Your task to perform on an android device: Search for the best deal on a 3d printer on aliexpress Image 0: 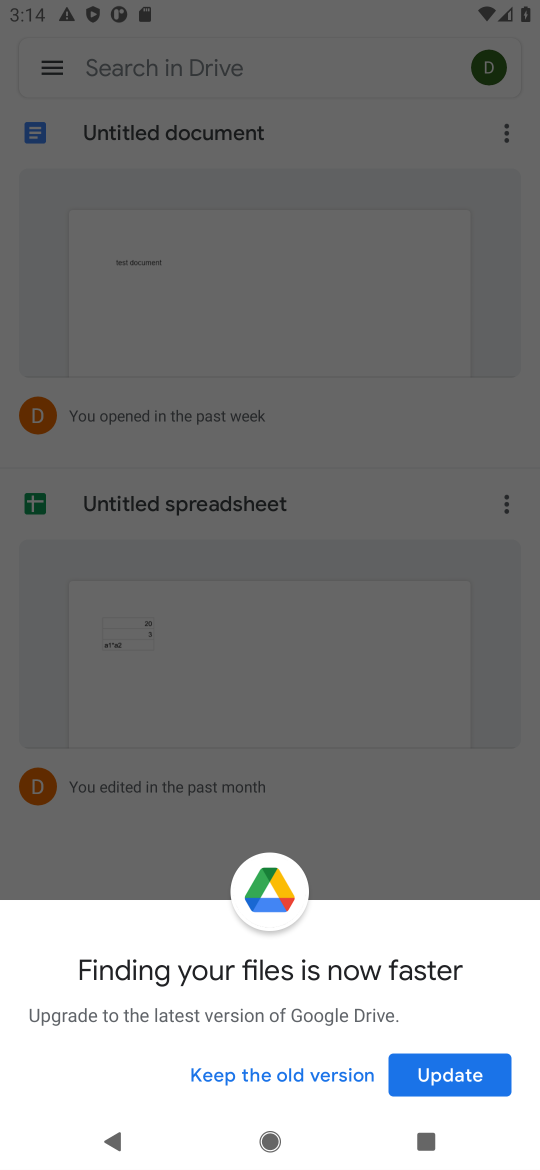
Step 0: press home button
Your task to perform on an android device: Search for the best deal on a 3d printer on aliexpress Image 1: 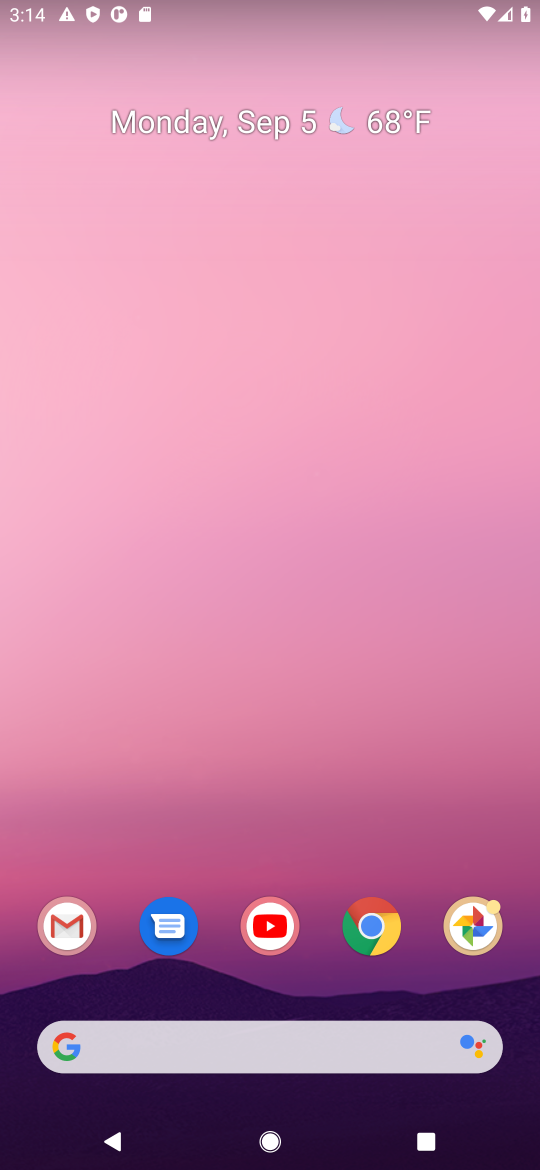
Step 1: click (375, 926)
Your task to perform on an android device: Search for the best deal on a 3d printer on aliexpress Image 2: 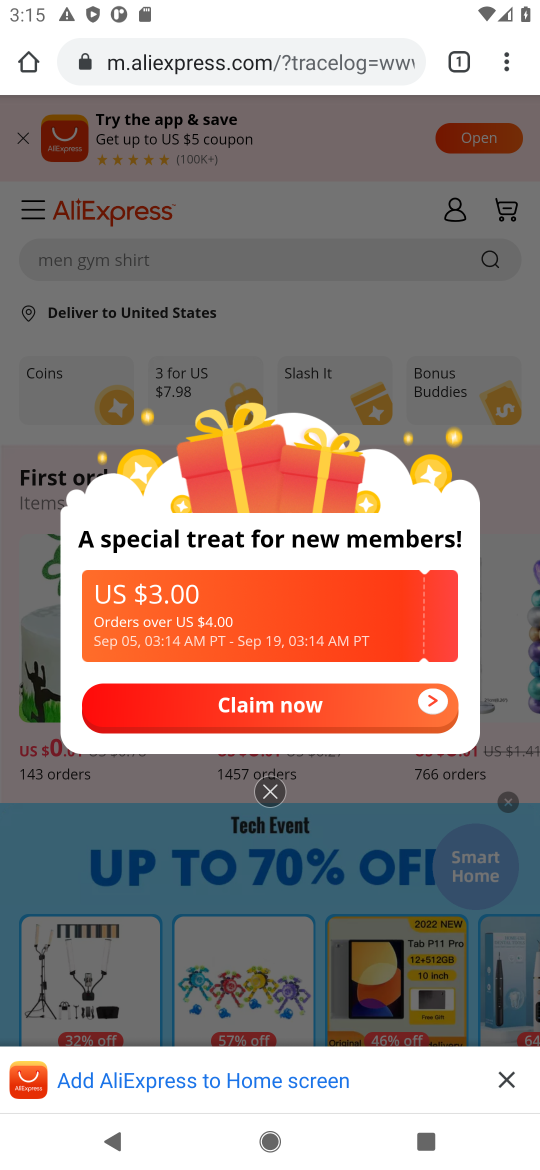
Step 2: click (247, 65)
Your task to perform on an android device: Search for the best deal on a 3d printer on aliexpress Image 3: 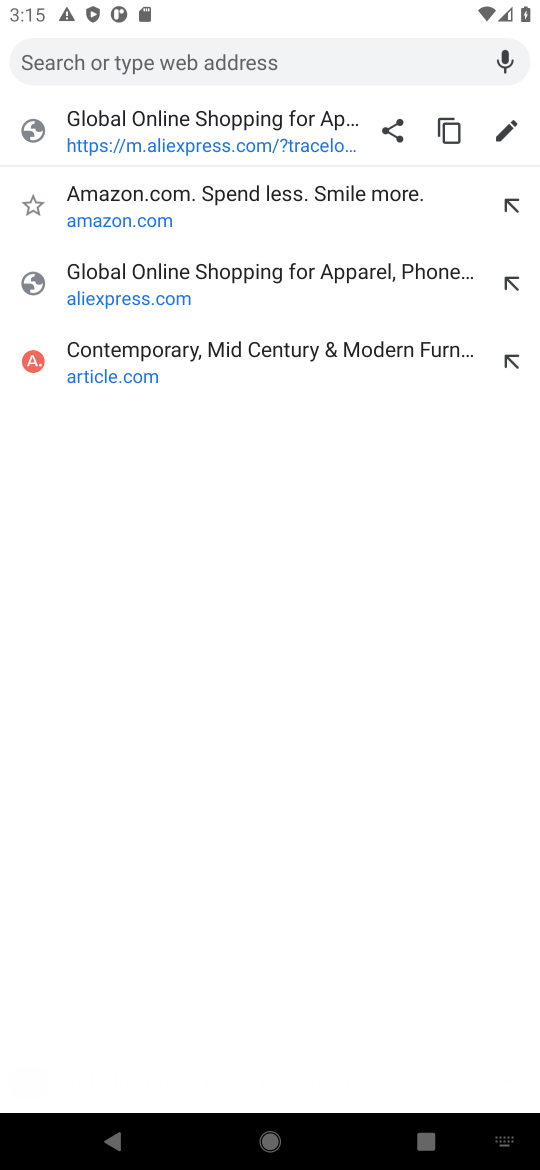
Step 3: type "aliexpress"
Your task to perform on an android device: Search for the best deal on a 3d printer on aliexpress Image 4: 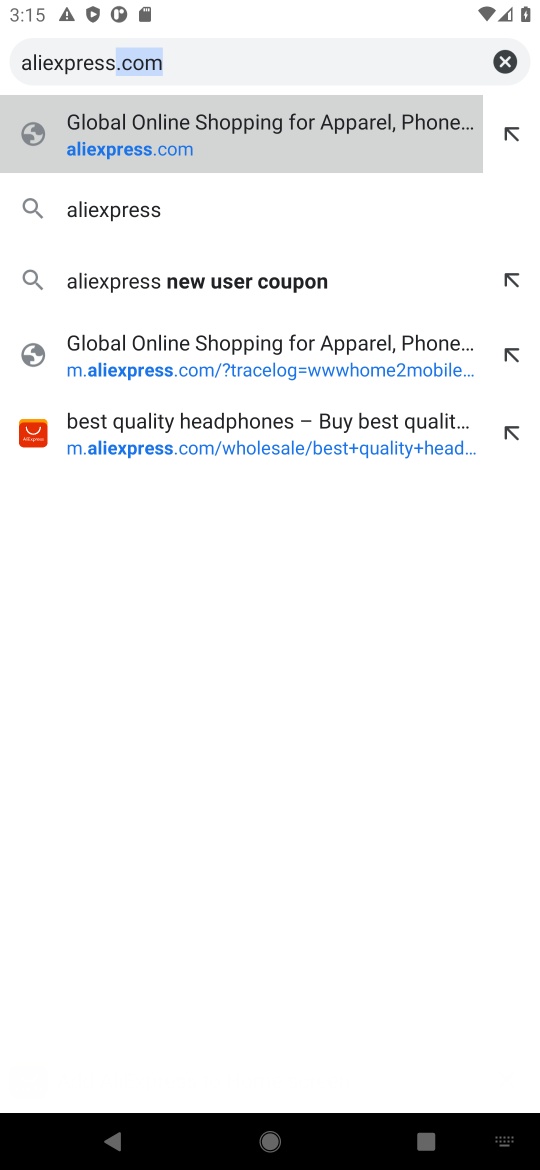
Step 4: click (173, 136)
Your task to perform on an android device: Search for the best deal on a 3d printer on aliexpress Image 5: 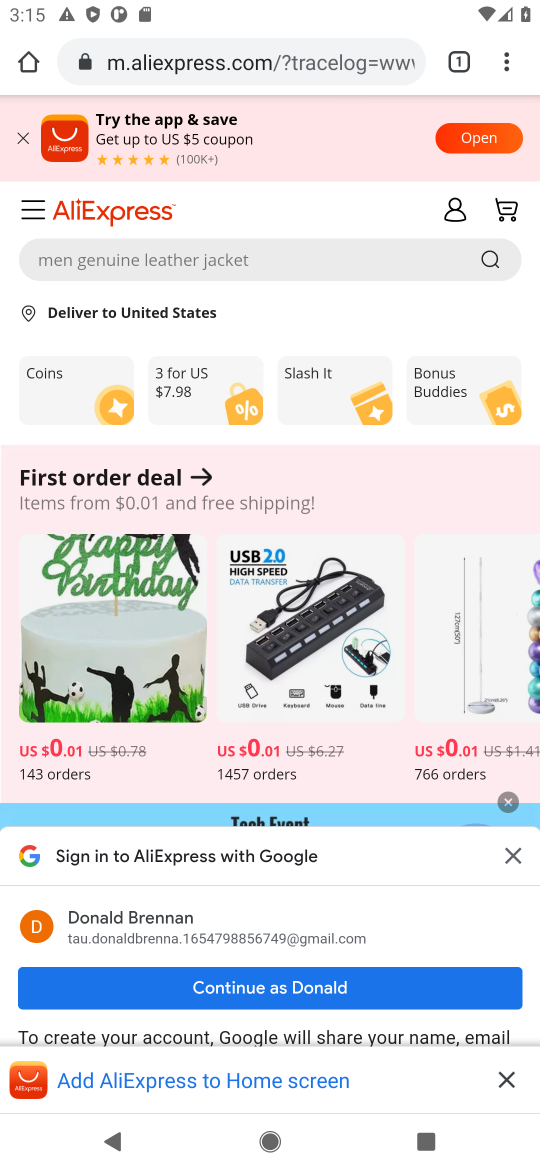
Step 5: click (168, 252)
Your task to perform on an android device: Search for the best deal on a 3d printer on aliexpress Image 6: 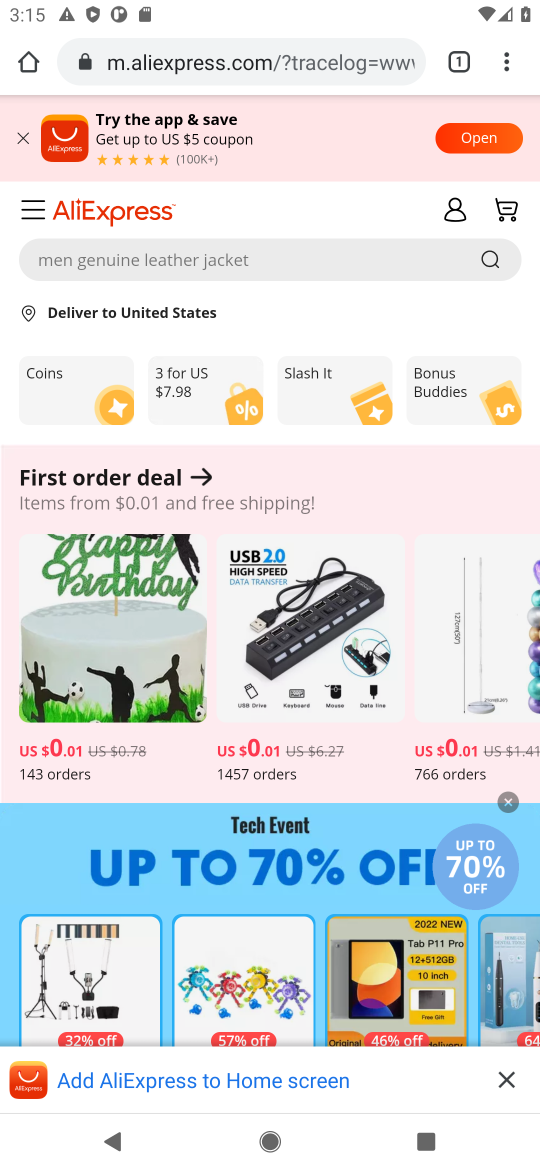
Step 6: click (259, 253)
Your task to perform on an android device: Search for the best deal on a 3d printer on aliexpress Image 7: 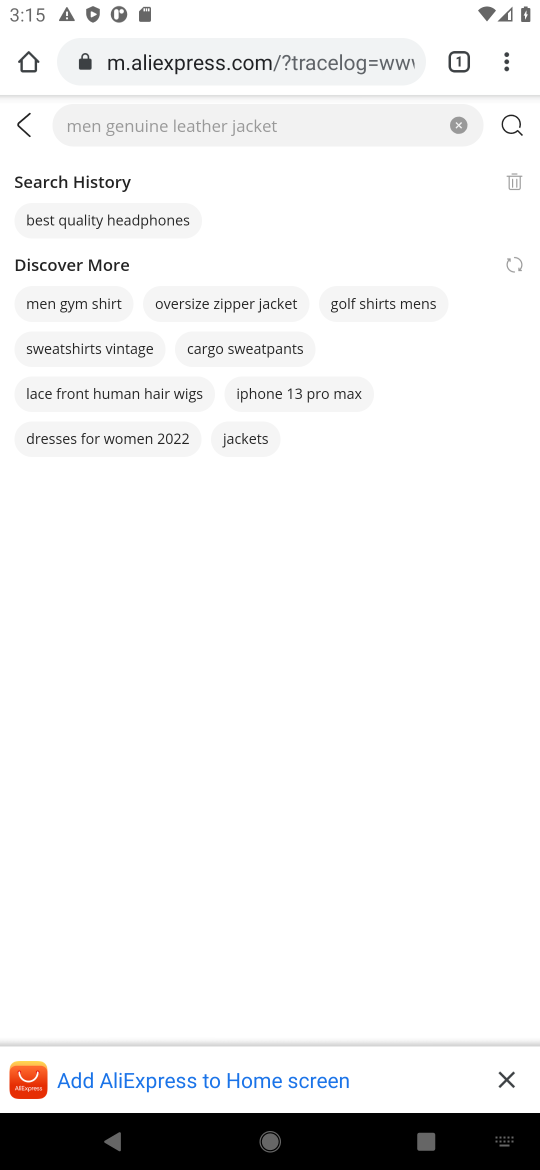
Step 7: type "best deal on a 3d  printer"
Your task to perform on an android device: Search for the best deal on a 3d printer on aliexpress Image 8: 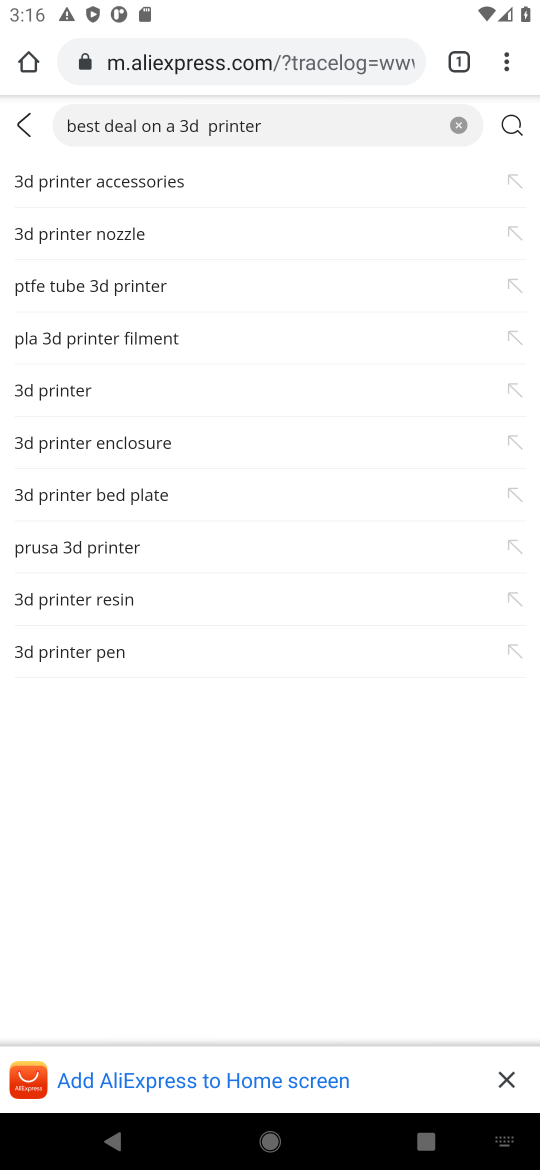
Step 8: task complete